Your task to perform on an android device: Clear the shopping cart on bestbuy. Search for "jbl flip 4" on bestbuy, select the first entry, add it to the cart, then select checkout. Image 0: 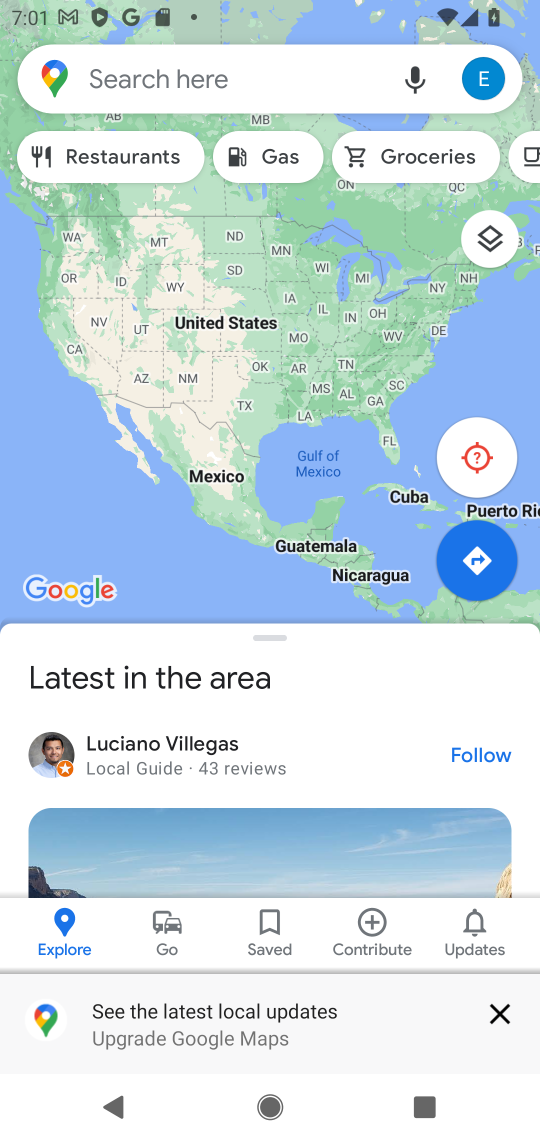
Step 0: press home button
Your task to perform on an android device: Clear the shopping cart on bestbuy. Search for "jbl flip 4" on bestbuy, select the first entry, add it to the cart, then select checkout. Image 1: 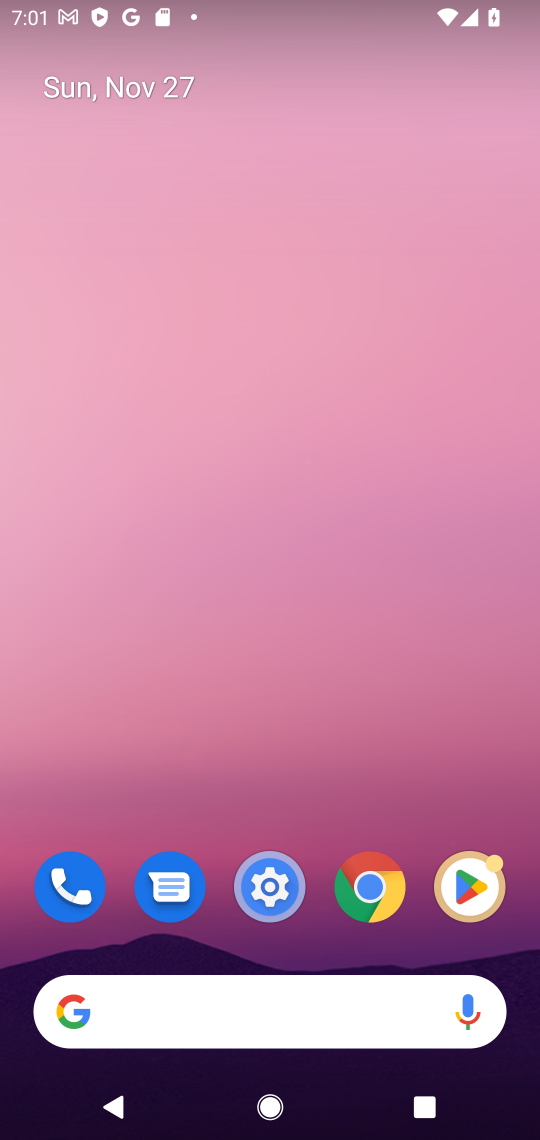
Step 1: click (230, 1003)
Your task to perform on an android device: Clear the shopping cart on bestbuy. Search for "jbl flip 4" on bestbuy, select the first entry, add it to the cart, then select checkout. Image 2: 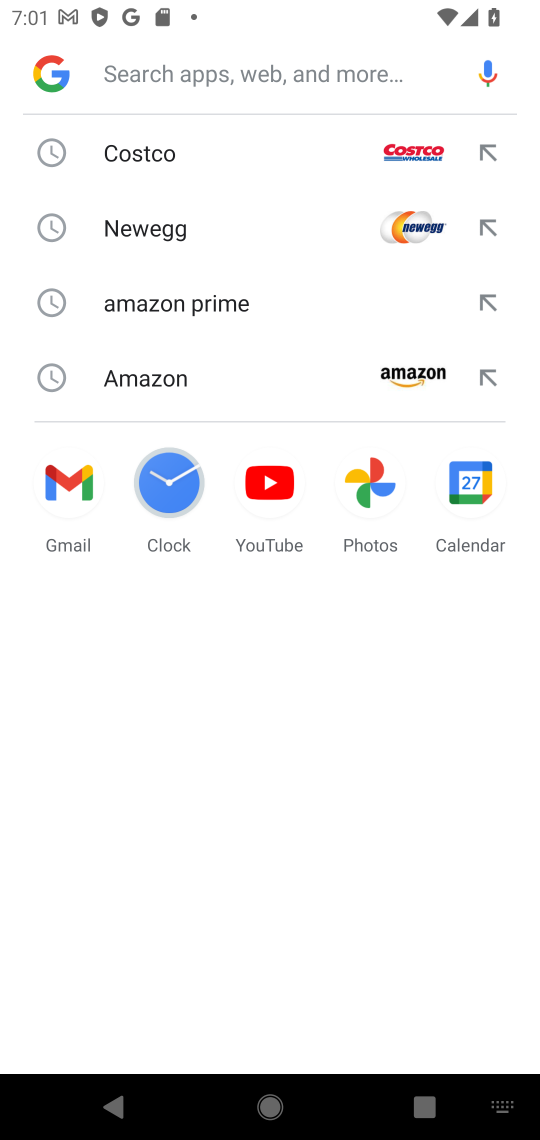
Step 2: type "jbl flip 4"
Your task to perform on an android device: Clear the shopping cart on bestbuy. Search for "jbl flip 4" on bestbuy, select the first entry, add it to the cart, then select checkout. Image 3: 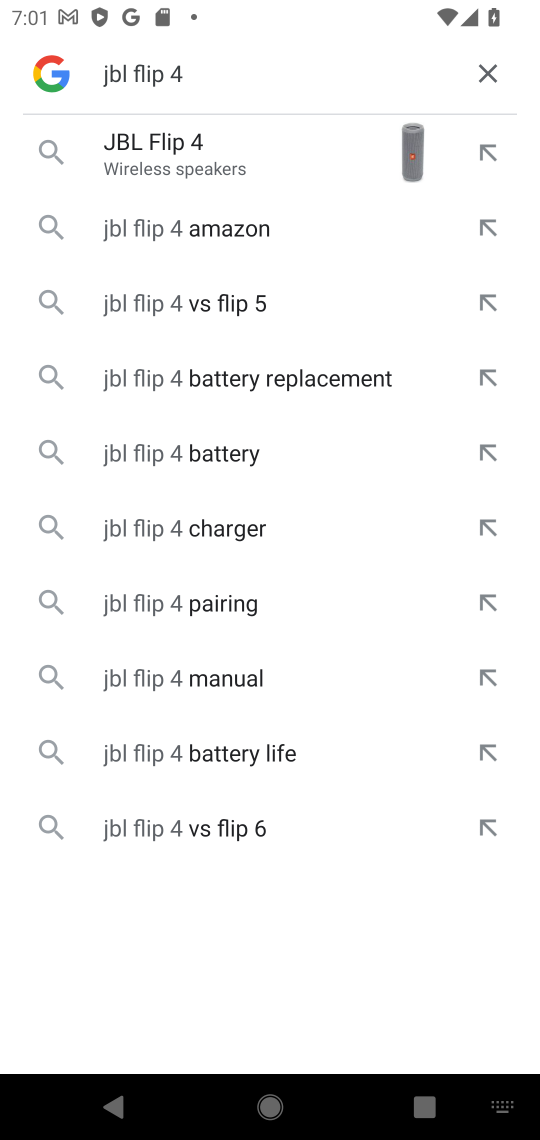
Step 3: click (182, 194)
Your task to perform on an android device: Clear the shopping cart on bestbuy. Search for "jbl flip 4" on bestbuy, select the first entry, add it to the cart, then select checkout. Image 4: 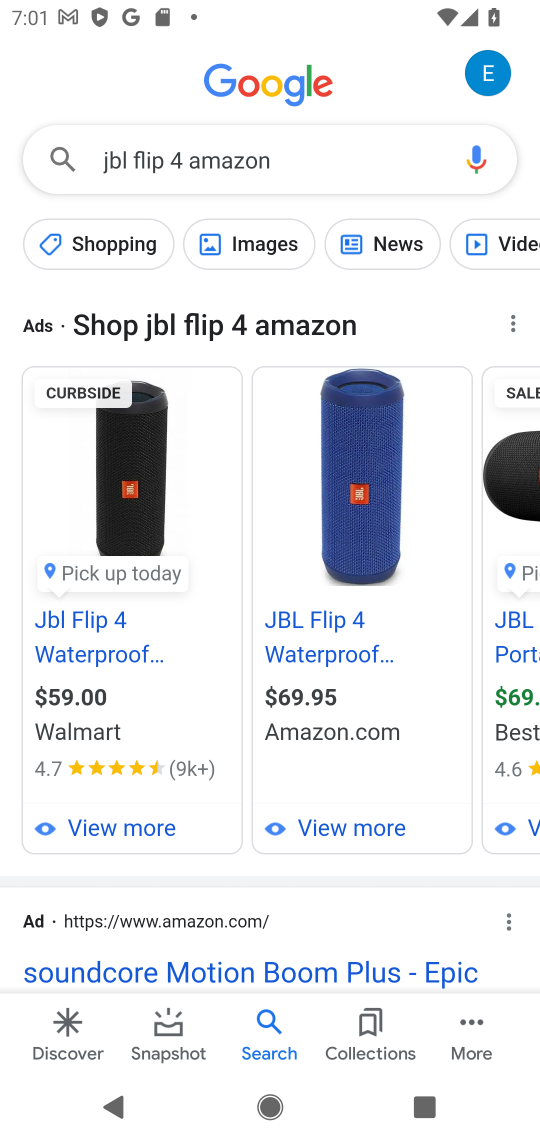
Step 4: drag from (322, 934) to (340, 355)
Your task to perform on an android device: Clear the shopping cart on bestbuy. Search for "jbl flip 4" on bestbuy, select the first entry, add it to the cart, then select checkout. Image 5: 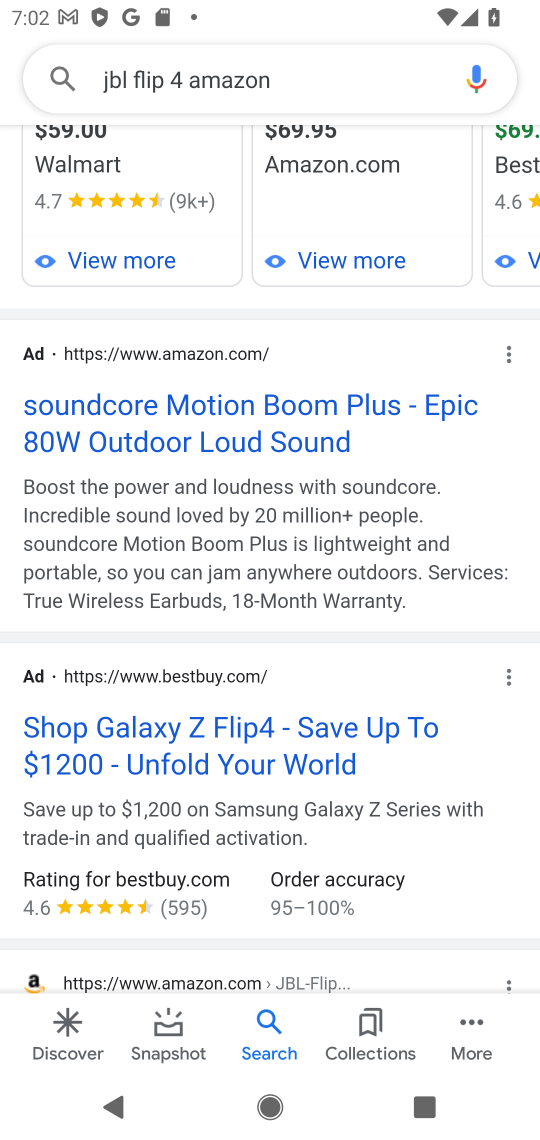
Step 5: click (380, 729)
Your task to perform on an android device: Clear the shopping cart on bestbuy. Search for "jbl flip 4" on bestbuy, select the first entry, add it to the cart, then select checkout. Image 6: 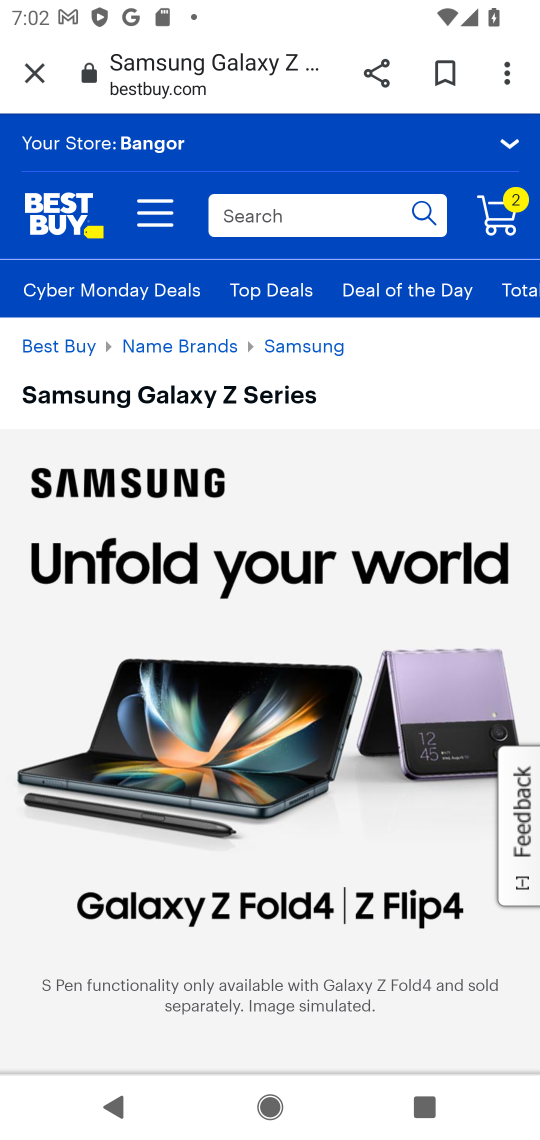
Step 6: drag from (267, 962) to (285, 512)
Your task to perform on an android device: Clear the shopping cart on bestbuy. Search for "jbl flip 4" on bestbuy, select the first entry, add it to the cart, then select checkout. Image 7: 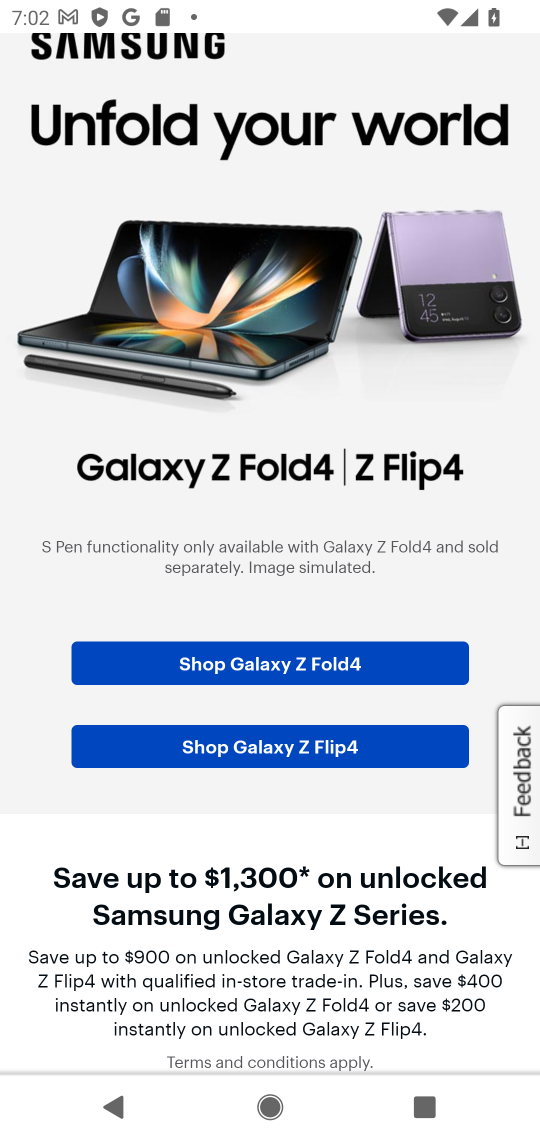
Step 7: click (311, 680)
Your task to perform on an android device: Clear the shopping cart on bestbuy. Search for "jbl flip 4" on bestbuy, select the first entry, add it to the cart, then select checkout. Image 8: 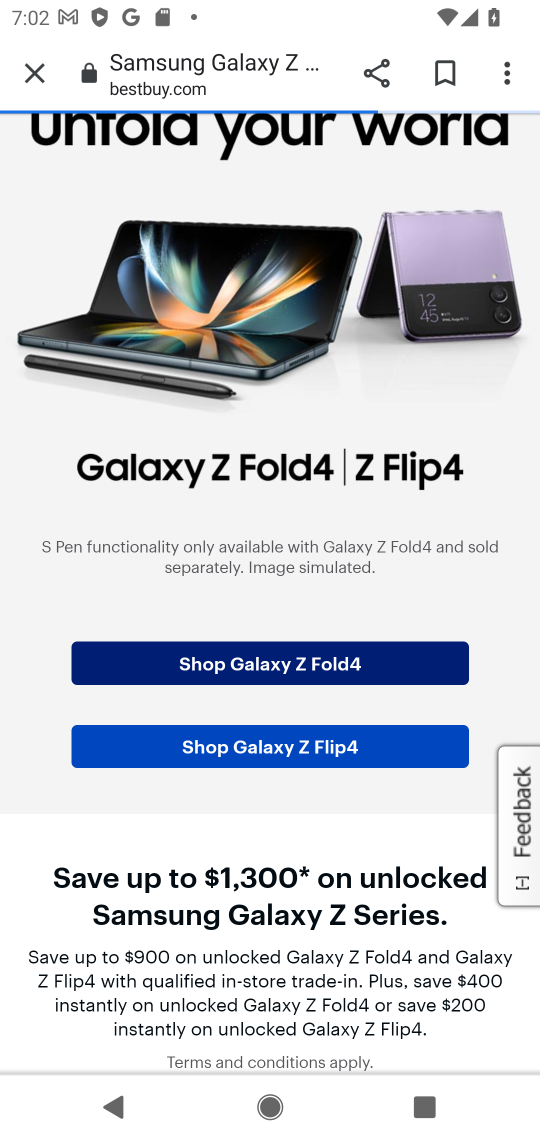
Step 8: task complete